Your task to perform on an android device: see tabs open on other devices in the chrome app Image 0: 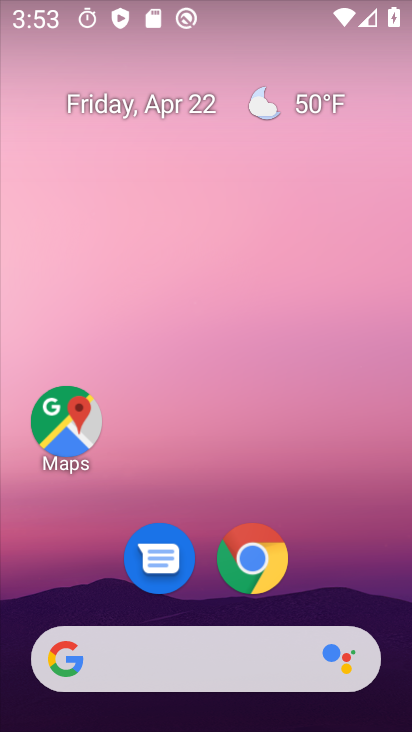
Step 0: drag from (301, 572) to (319, 113)
Your task to perform on an android device: see tabs open on other devices in the chrome app Image 1: 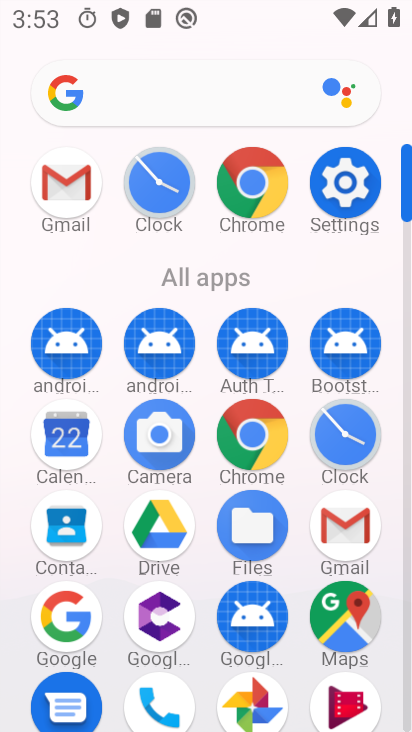
Step 1: click (247, 213)
Your task to perform on an android device: see tabs open on other devices in the chrome app Image 2: 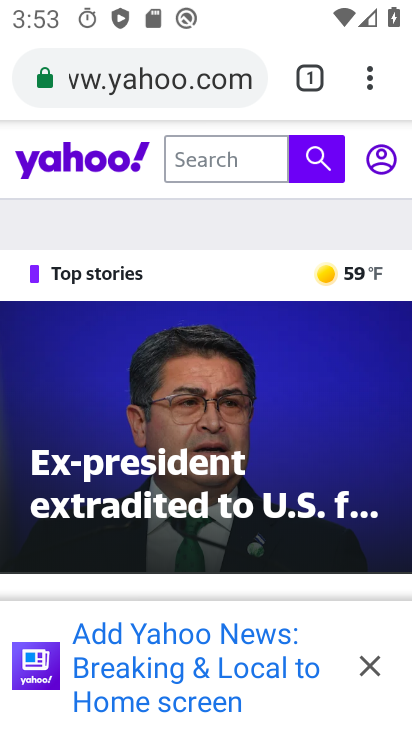
Step 2: click (373, 78)
Your task to perform on an android device: see tabs open on other devices in the chrome app Image 3: 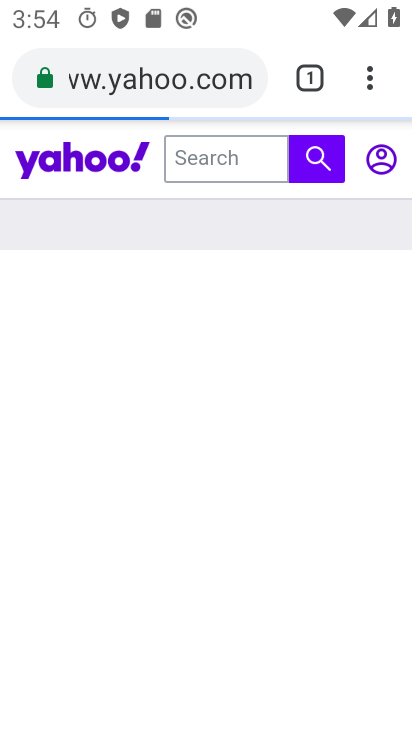
Step 3: click (375, 81)
Your task to perform on an android device: see tabs open on other devices in the chrome app Image 4: 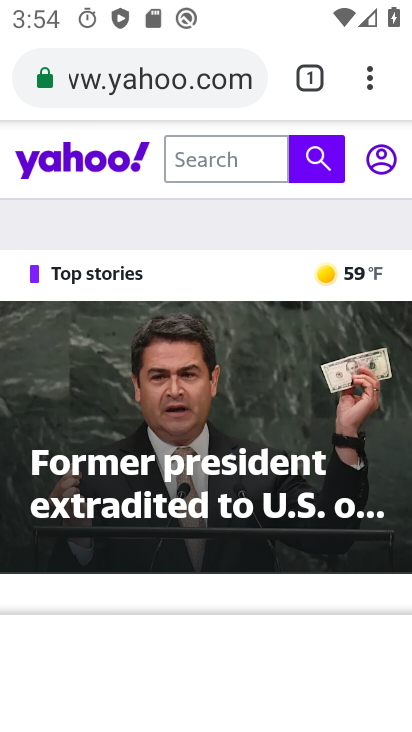
Step 4: click (367, 81)
Your task to perform on an android device: see tabs open on other devices in the chrome app Image 5: 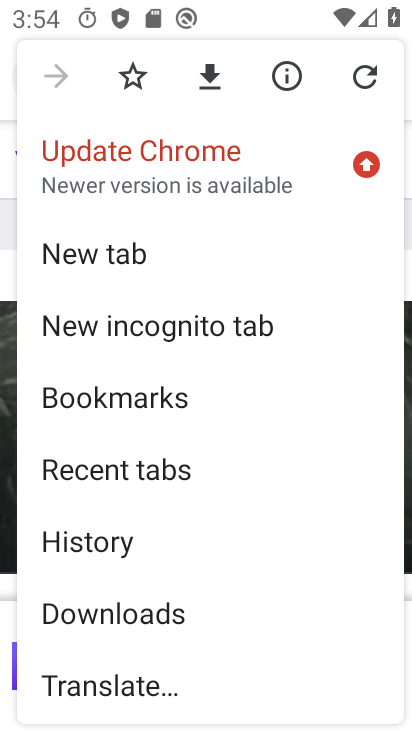
Step 5: click (130, 468)
Your task to perform on an android device: see tabs open on other devices in the chrome app Image 6: 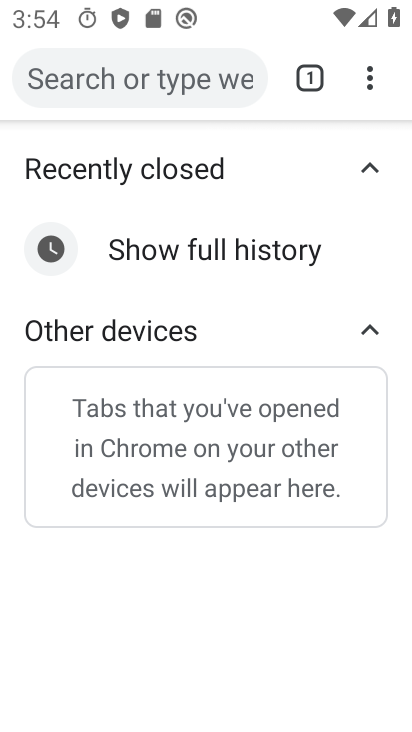
Step 6: task complete